Your task to perform on an android device: Go to ESPN.com Image 0: 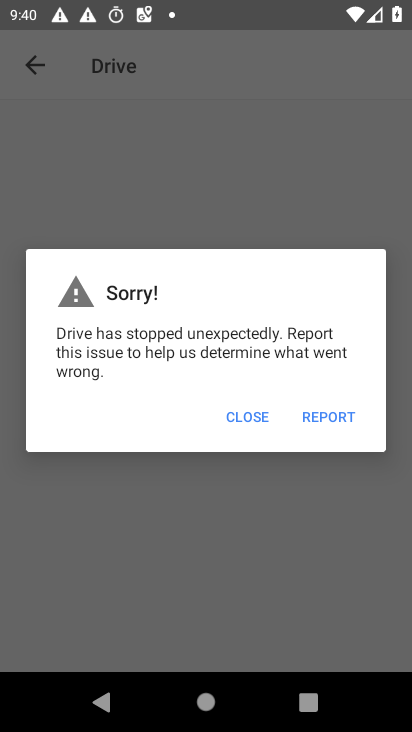
Step 0: press back button
Your task to perform on an android device: Go to ESPN.com Image 1: 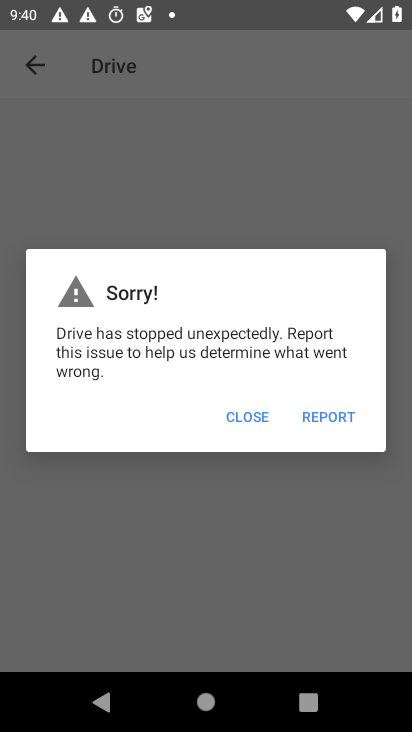
Step 1: press back button
Your task to perform on an android device: Go to ESPN.com Image 2: 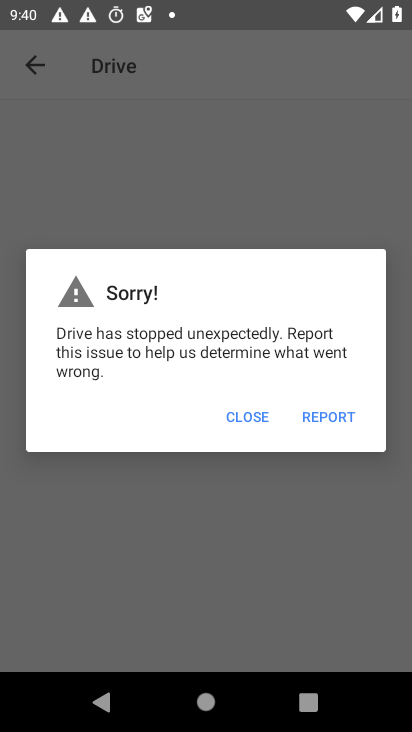
Step 2: press home button
Your task to perform on an android device: Go to ESPN.com Image 3: 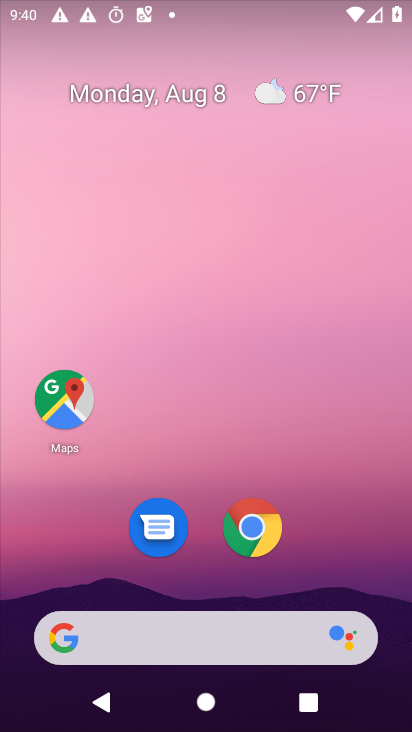
Step 3: click (250, 526)
Your task to perform on an android device: Go to ESPN.com Image 4: 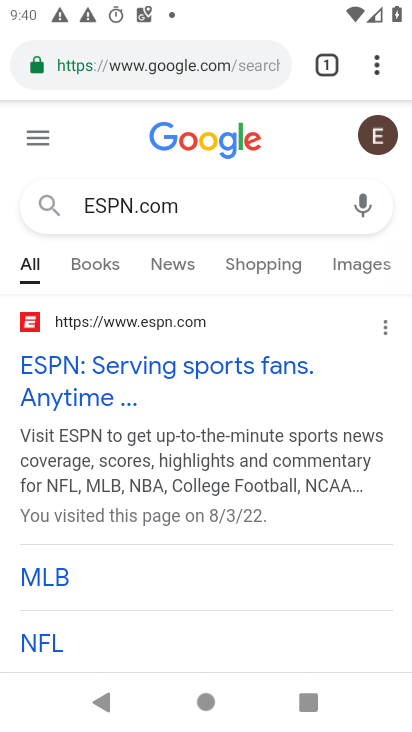
Step 4: drag from (223, 62) to (257, 62)
Your task to perform on an android device: Go to ESPN.com Image 5: 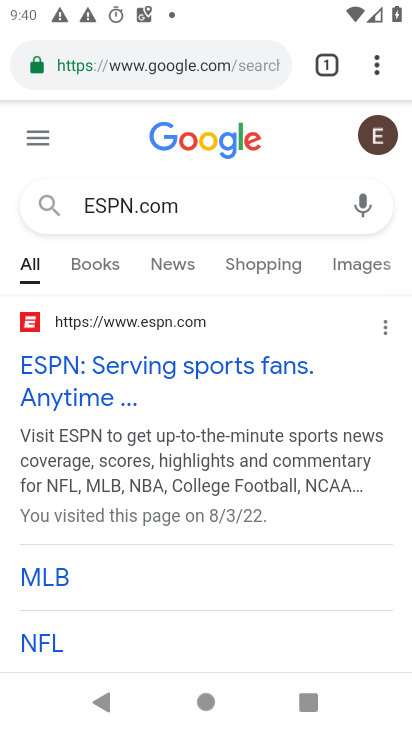
Step 5: click (267, 59)
Your task to perform on an android device: Go to ESPN.com Image 6: 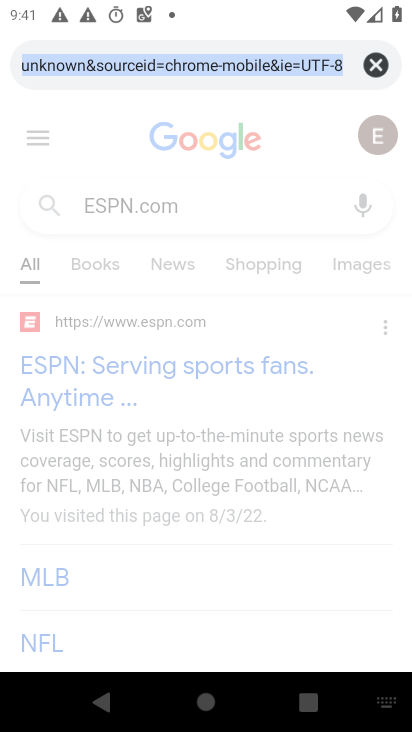
Step 6: click (368, 58)
Your task to perform on an android device: Go to ESPN.com Image 7: 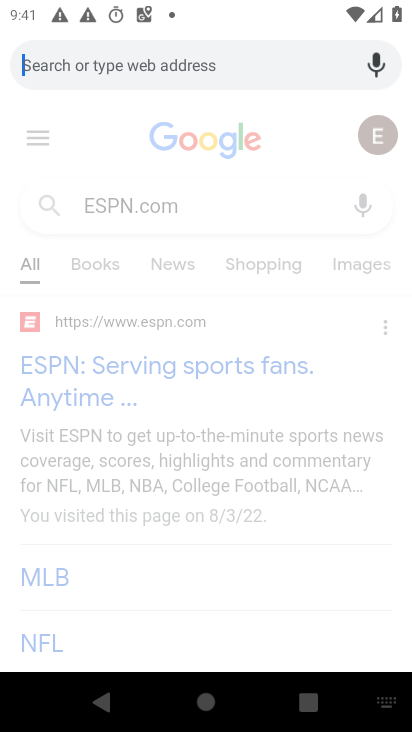
Step 7: type "ESPN.com"
Your task to perform on an android device: Go to ESPN.com Image 8: 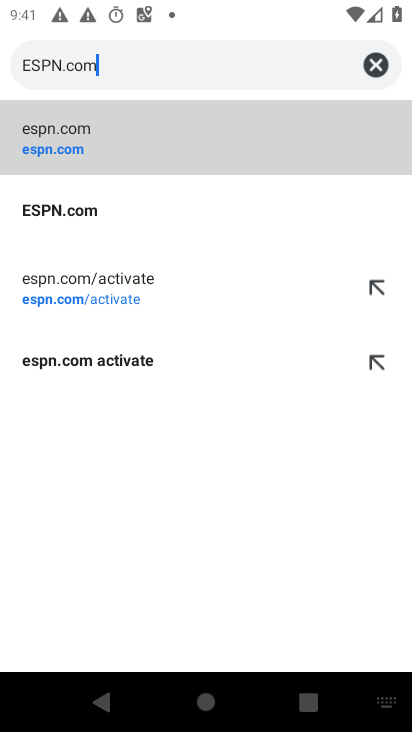
Step 8: click (61, 205)
Your task to perform on an android device: Go to ESPN.com Image 9: 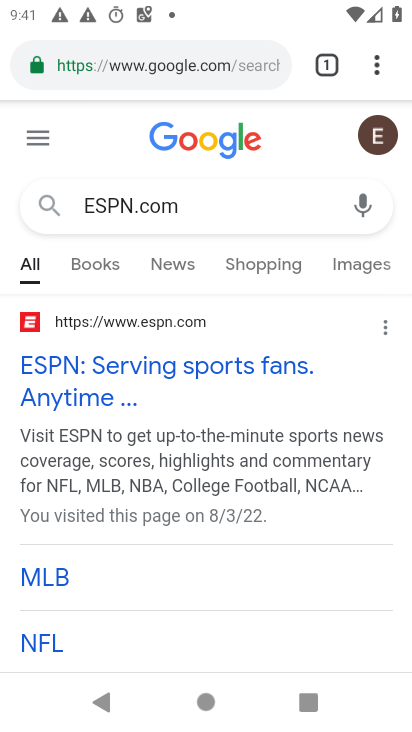
Step 9: task complete